Your task to perform on an android device: Do I have any events today? Image 0: 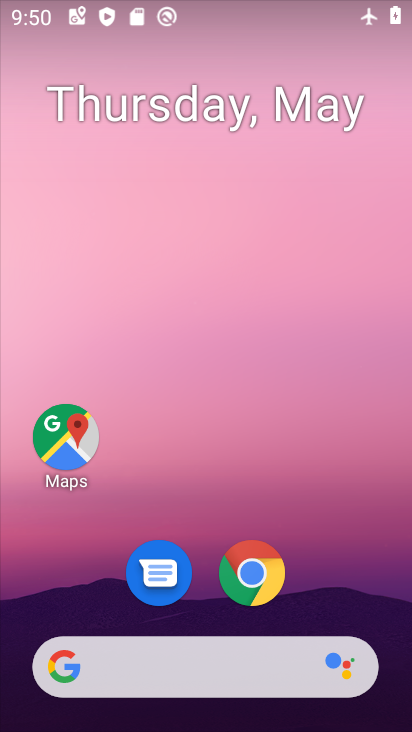
Step 0: drag from (195, 620) to (198, 159)
Your task to perform on an android device: Do I have any events today? Image 1: 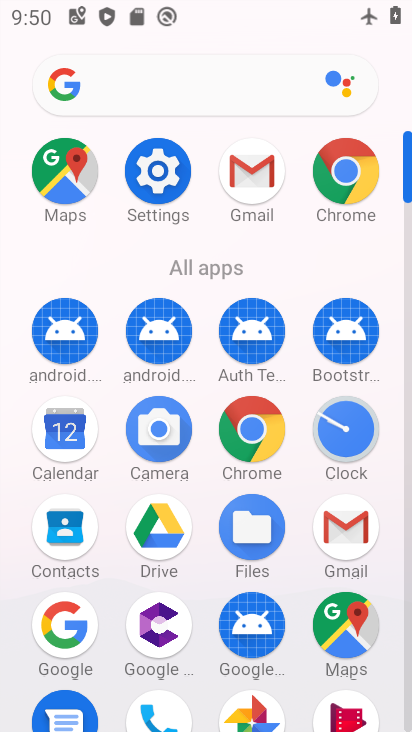
Step 1: click (57, 448)
Your task to perform on an android device: Do I have any events today? Image 2: 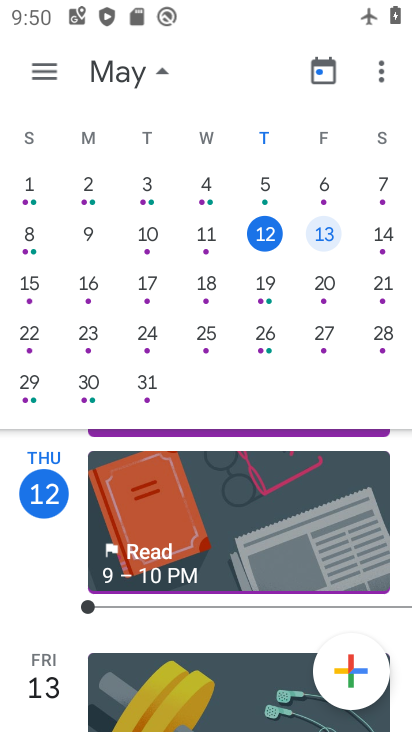
Step 2: click (266, 225)
Your task to perform on an android device: Do I have any events today? Image 3: 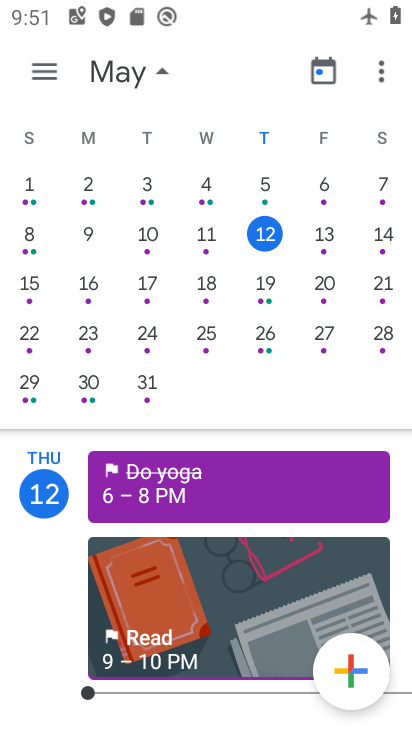
Step 3: task complete